Your task to perform on an android device: toggle translation in the chrome app Image 0: 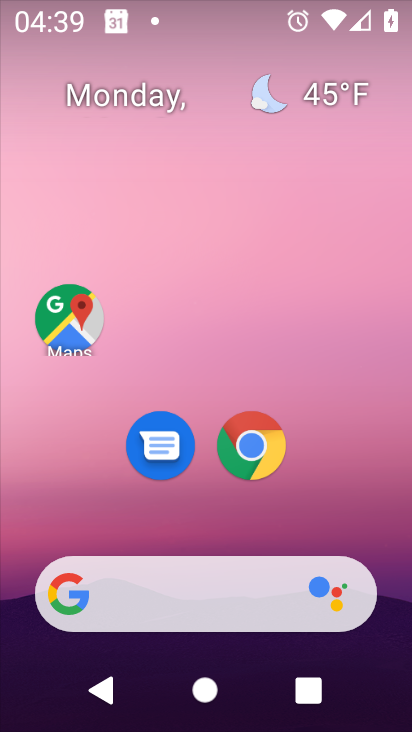
Step 0: click (232, 431)
Your task to perform on an android device: toggle translation in the chrome app Image 1: 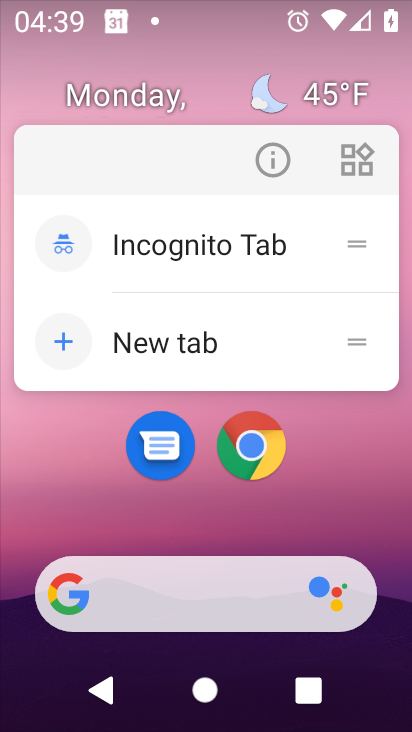
Step 1: click (232, 430)
Your task to perform on an android device: toggle translation in the chrome app Image 2: 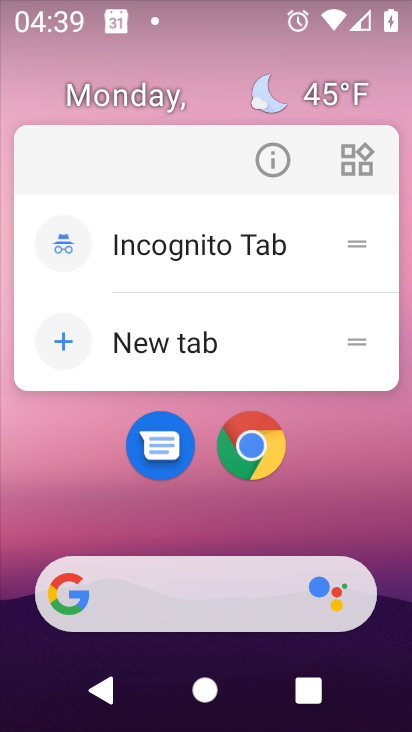
Step 2: click (232, 430)
Your task to perform on an android device: toggle translation in the chrome app Image 3: 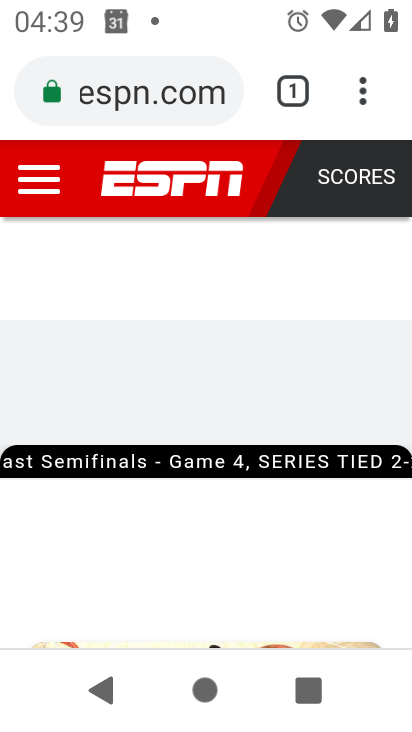
Step 3: click (349, 97)
Your task to perform on an android device: toggle translation in the chrome app Image 4: 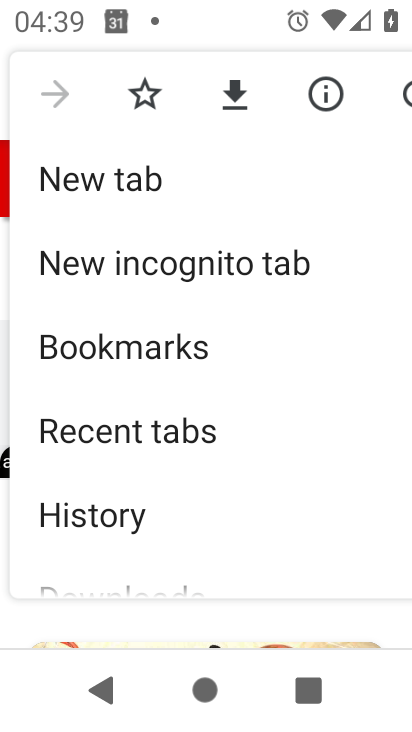
Step 4: drag from (193, 494) to (198, 95)
Your task to perform on an android device: toggle translation in the chrome app Image 5: 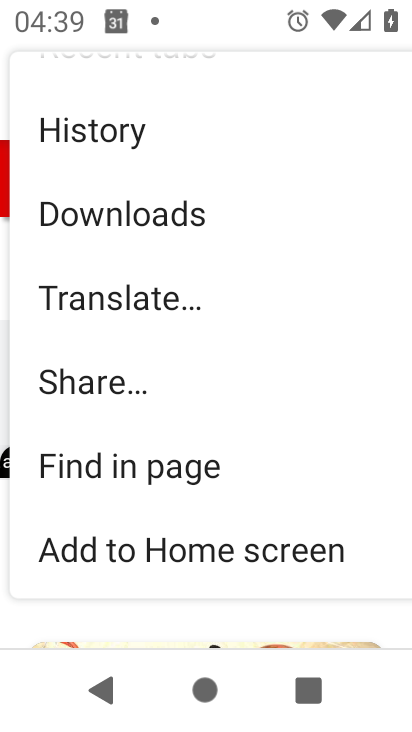
Step 5: drag from (138, 527) to (136, 98)
Your task to perform on an android device: toggle translation in the chrome app Image 6: 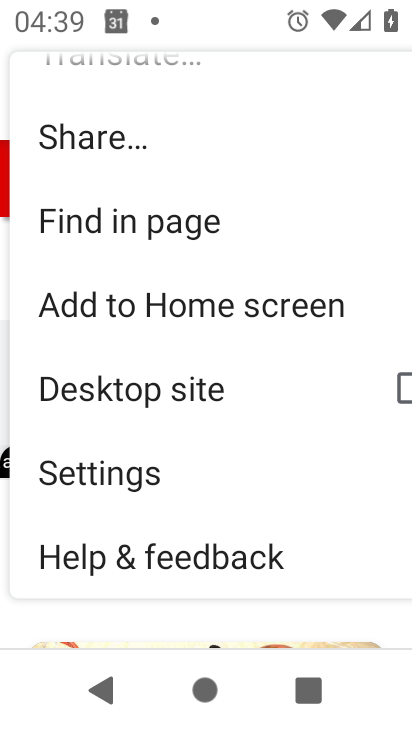
Step 6: click (76, 445)
Your task to perform on an android device: toggle translation in the chrome app Image 7: 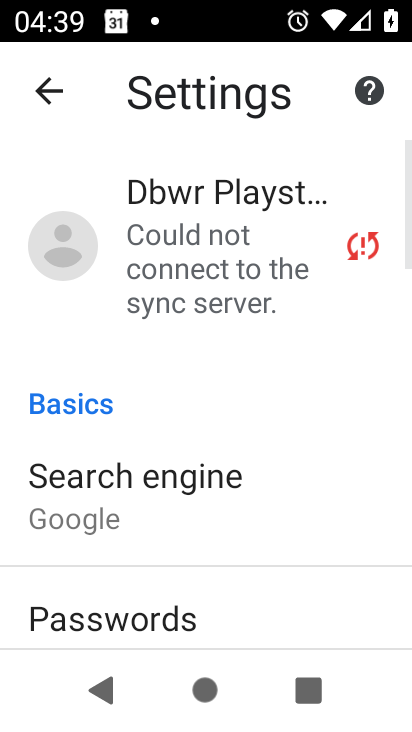
Step 7: drag from (187, 611) to (236, 294)
Your task to perform on an android device: toggle translation in the chrome app Image 8: 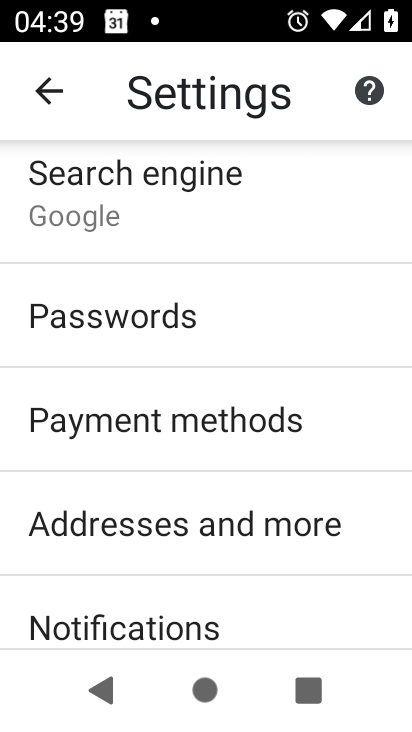
Step 8: drag from (278, 571) to (303, 304)
Your task to perform on an android device: toggle translation in the chrome app Image 9: 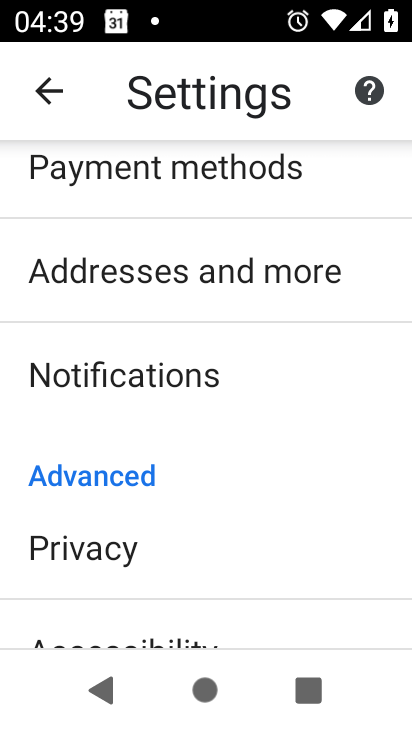
Step 9: drag from (325, 566) to (346, 267)
Your task to perform on an android device: toggle translation in the chrome app Image 10: 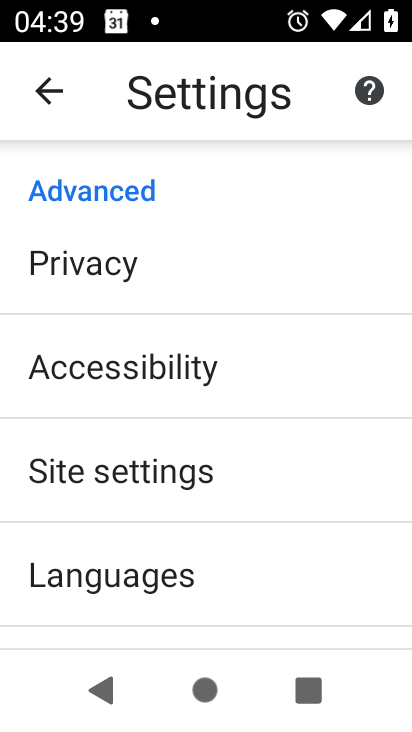
Step 10: click (144, 558)
Your task to perform on an android device: toggle translation in the chrome app Image 11: 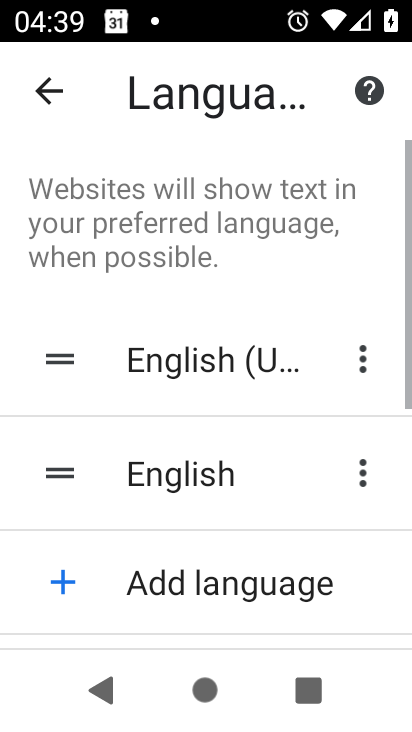
Step 11: drag from (189, 568) to (217, 240)
Your task to perform on an android device: toggle translation in the chrome app Image 12: 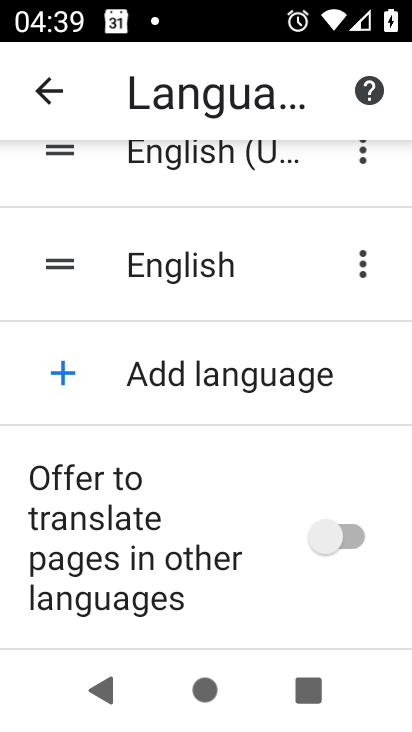
Step 12: click (301, 540)
Your task to perform on an android device: toggle translation in the chrome app Image 13: 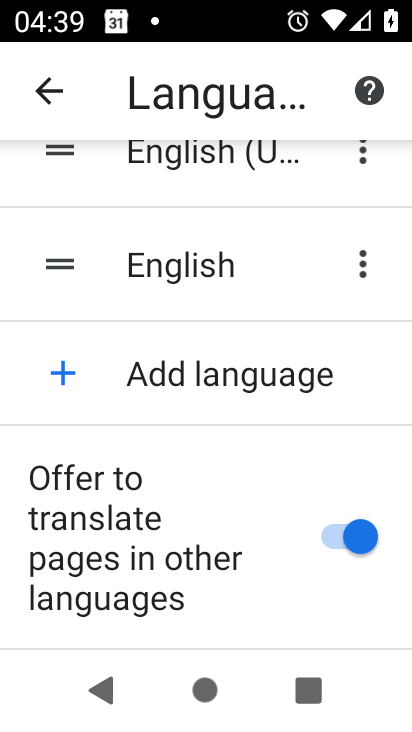
Step 13: task complete